Your task to perform on an android device: Open the Play Movies app and select the watchlist tab. Image 0: 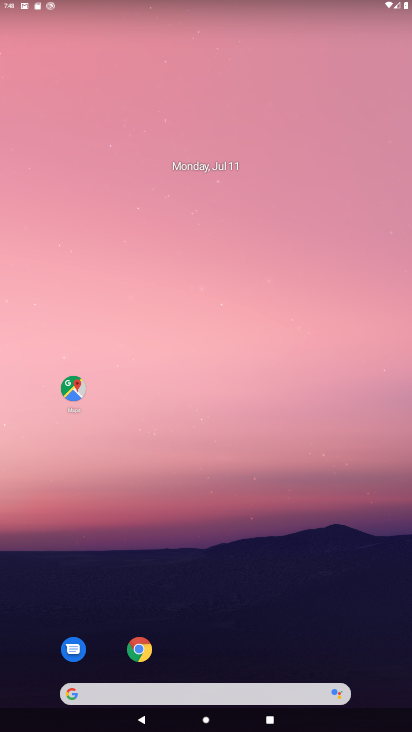
Step 0: drag from (287, 619) to (258, 65)
Your task to perform on an android device: Open the Play Movies app and select the watchlist tab. Image 1: 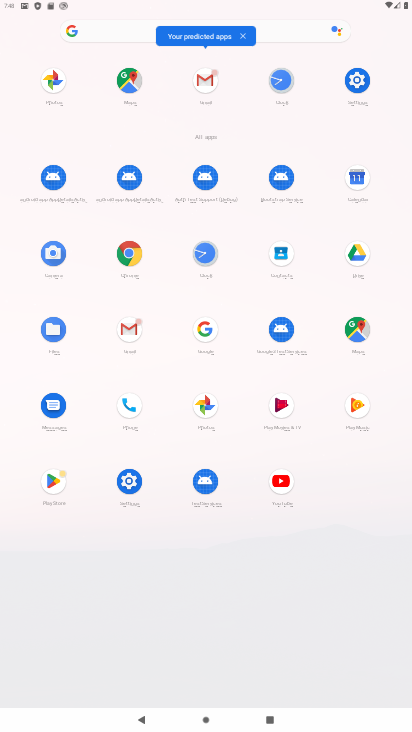
Step 1: click (275, 412)
Your task to perform on an android device: Open the Play Movies app and select the watchlist tab. Image 2: 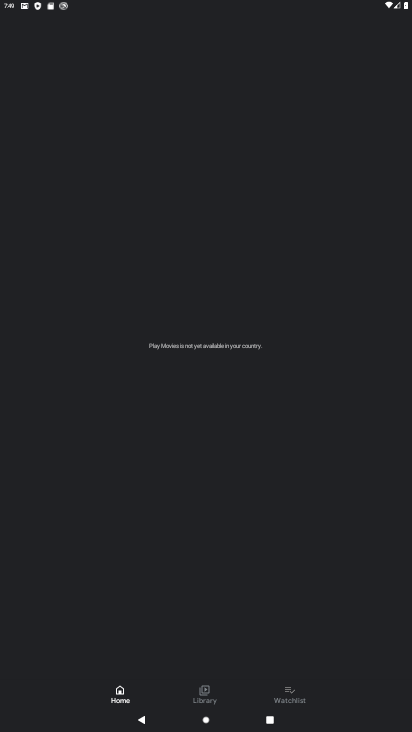
Step 2: click (296, 687)
Your task to perform on an android device: Open the Play Movies app and select the watchlist tab. Image 3: 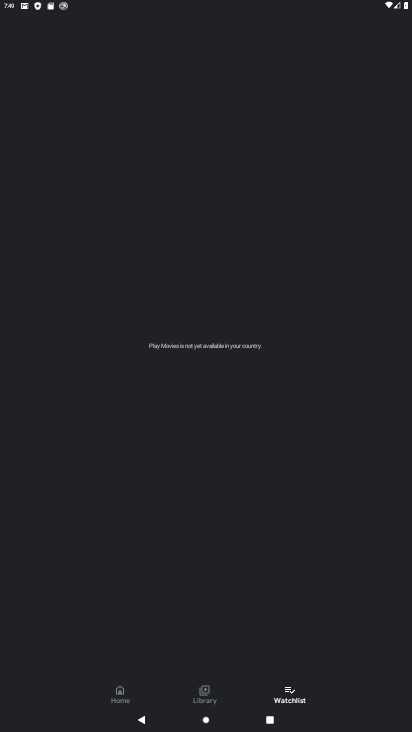
Step 3: task complete